Your task to perform on an android device: Open wifi settings Image 0: 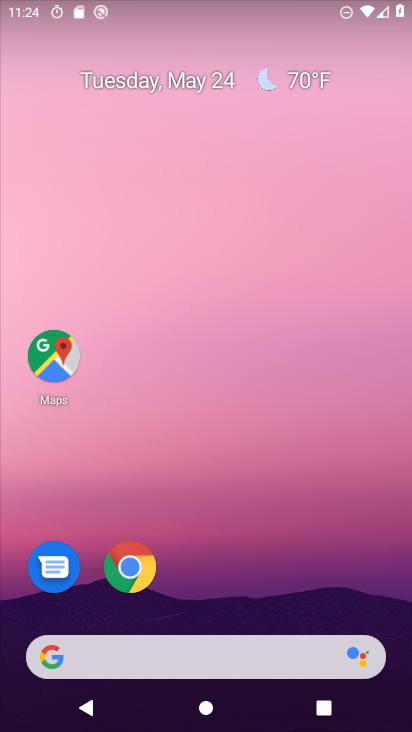
Step 0: drag from (386, 534) to (362, 298)
Your task to perform on an android device: Open wifi settings Image 1: 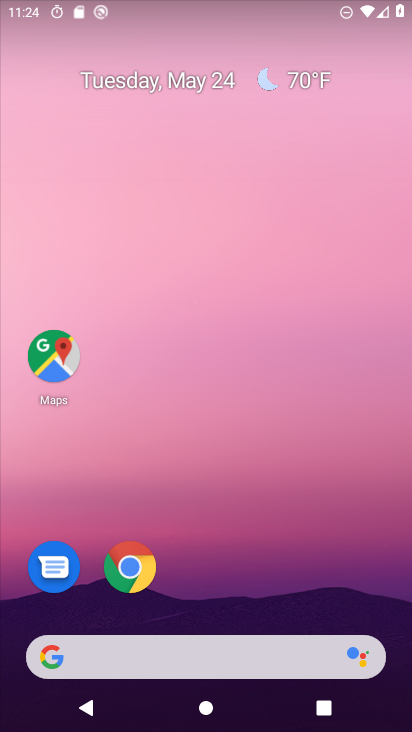
Step 1: drag from (388, 662) to (355, 143)
Your task to perform on an android device: Open wifi settings Image 2: 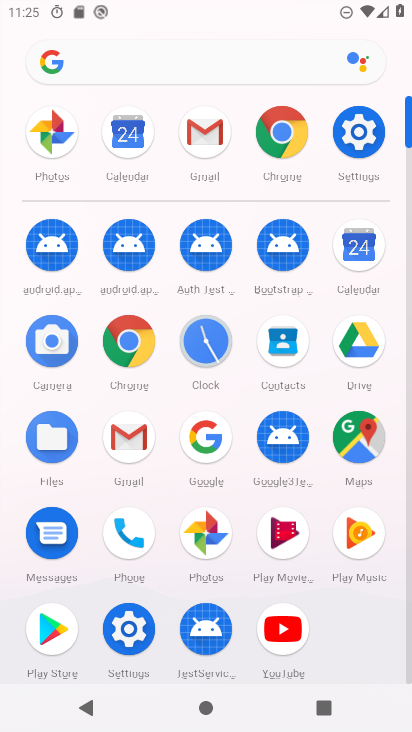
Step 2: click (357, 138)
Your task to perform on an android device: Open wifi settings Image 3: 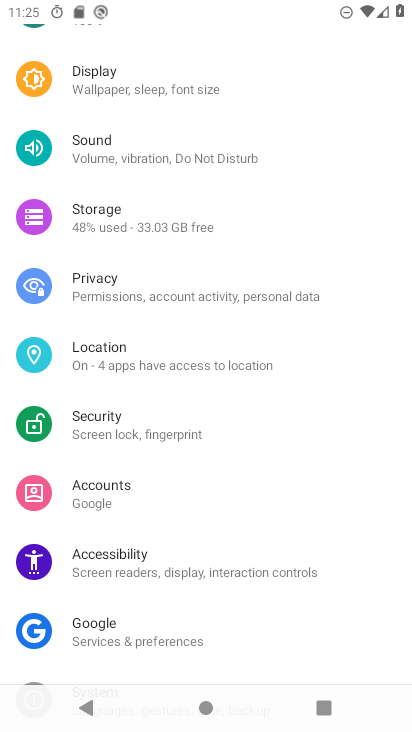
Step 3: drag from (324, 95) to (378, 575)
Your task to perform on an android device: Open wifi settings Image 4: 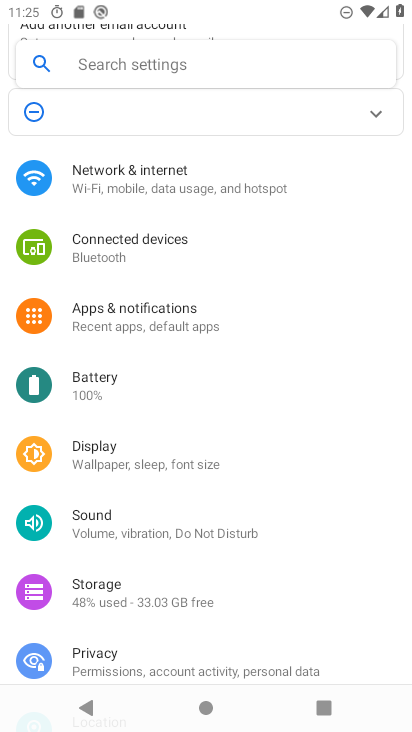
Step 4: click (117, 182)
Your task to perform on an android device: Open wifi settings Image 5: 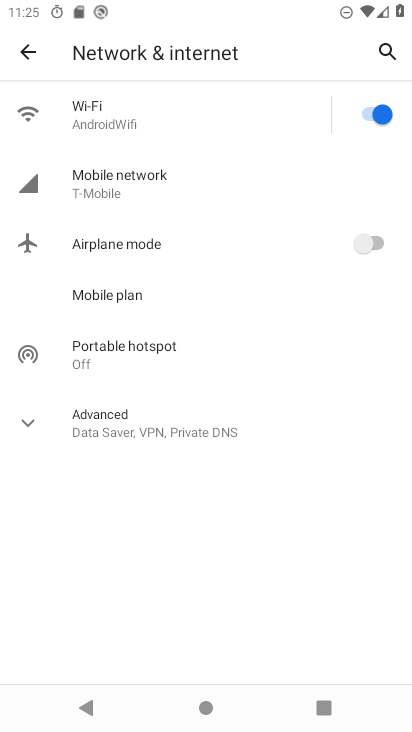
Step 5: click (168, 121)
Your task to perform on an android device: Open wifi settings Image 6: 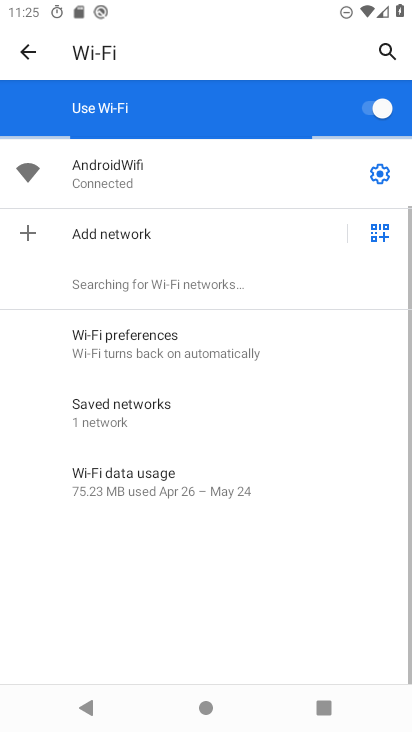
Step 6: click (381, 175)
Your task to perform on an android device: Open wifi settings Image 7: 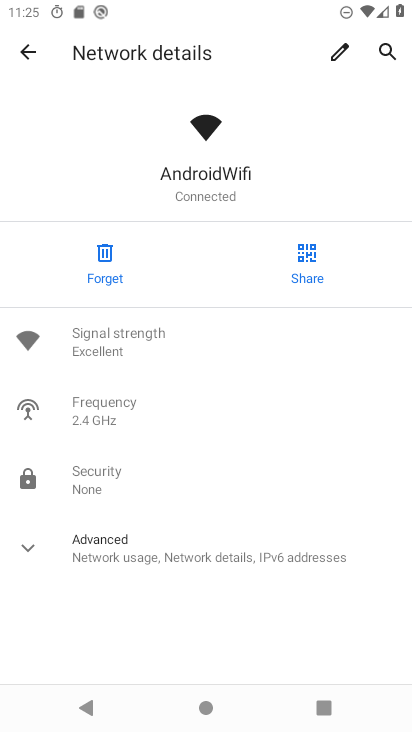
Step 7: task complete